Your task to perform on an android device: open chrome privacy settings Image 0: 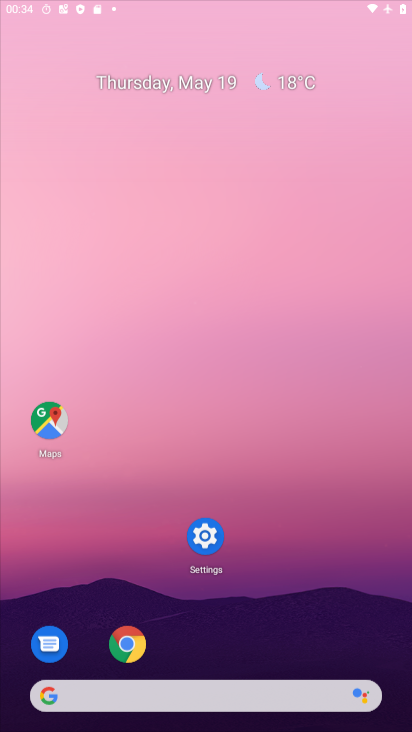
Step 0: drag from (283, 301) to (281, 245)
Your task to perform on an android device: open chrome privacy settings Image 1: 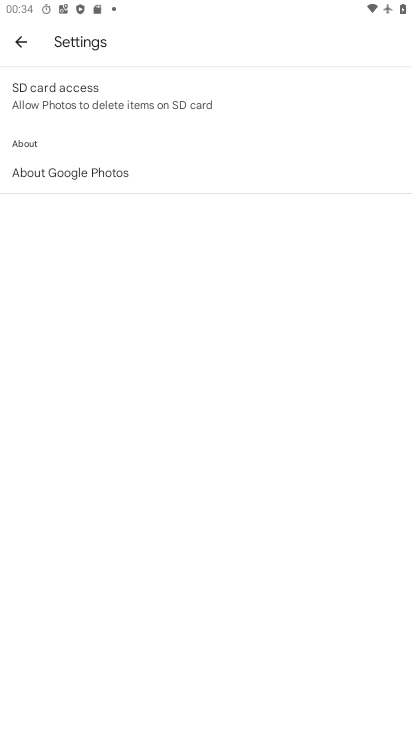
Step 1: press home button
Your task to perform on an android device: open chrome privacy settings Image 2: 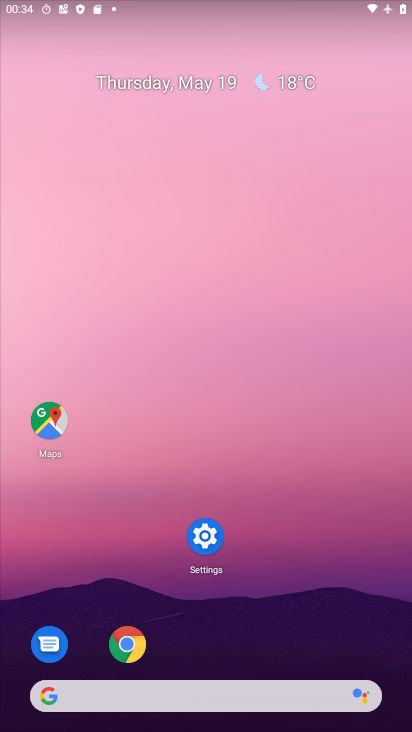
Step 2: drag from (318, 633) to (268, 255)
Your task to perform on an android device: open chrome privacy settings Image 3: 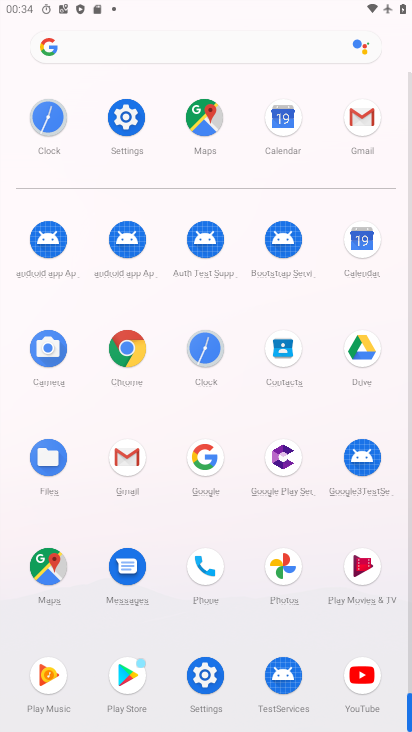
Step 3: click (135, 345)
Your task to perform on an android device: open chrome privacy settings Image 4: 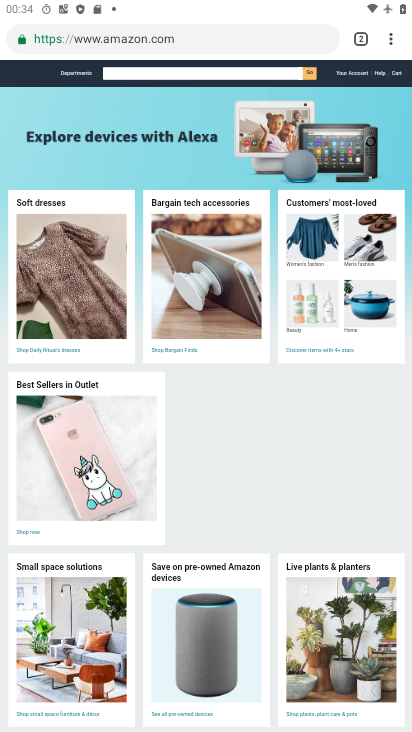
Step 4: drag from (389, 34) to (285, 475)
Your task to perform on an android device: open chrome privacy settings Image 5: 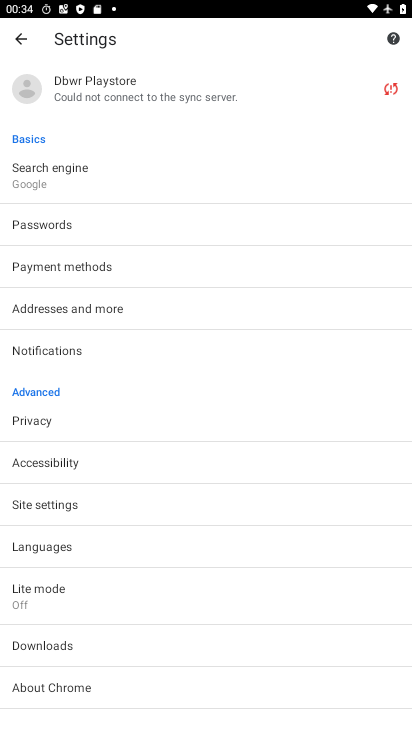
Step 5: drag from (131, 617) to (133, 262)
Your task to perform on an android device: open chrome privacy settings Image 6: 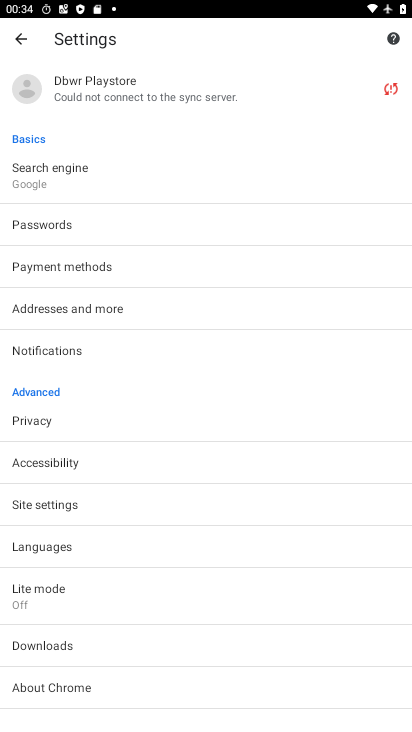
Step 6: click (28, 416)
Your task to perform on an android device: open chrome privacy settings Image 7: 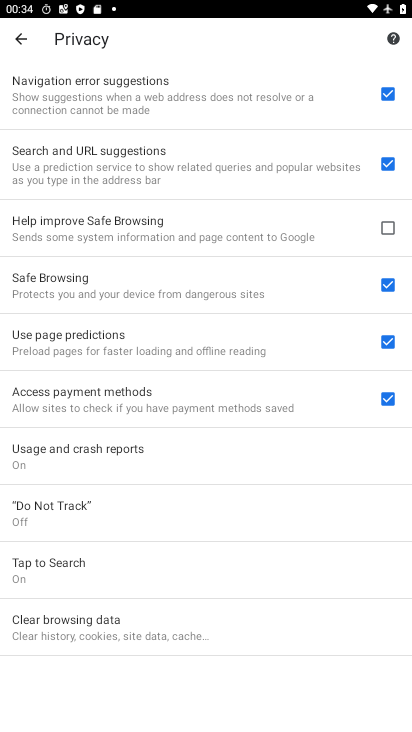
Step 7: task complete